Your task to perform on an android device: allow cookies in the chrome app Image 0: 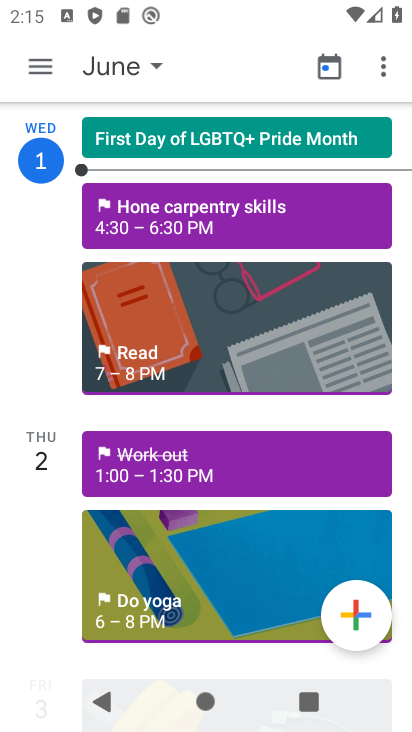
Step 0: press home button
Your task to perform on an android device: allow cookies in the chrome app Image 1: 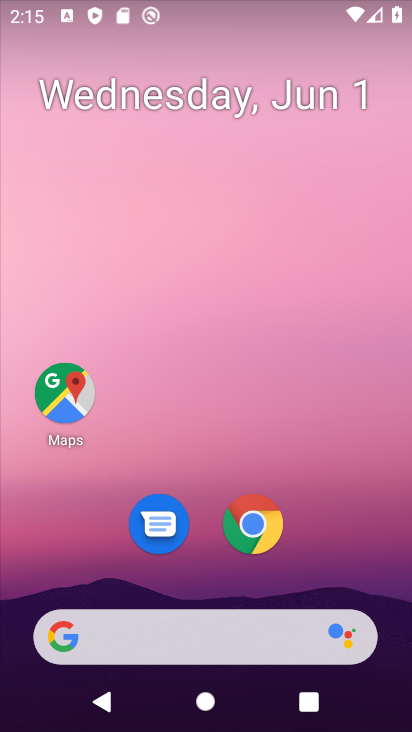
Step 1: click (257, 524)
Your task to perform on an android device: allow cookies in the chrome app Image 2: 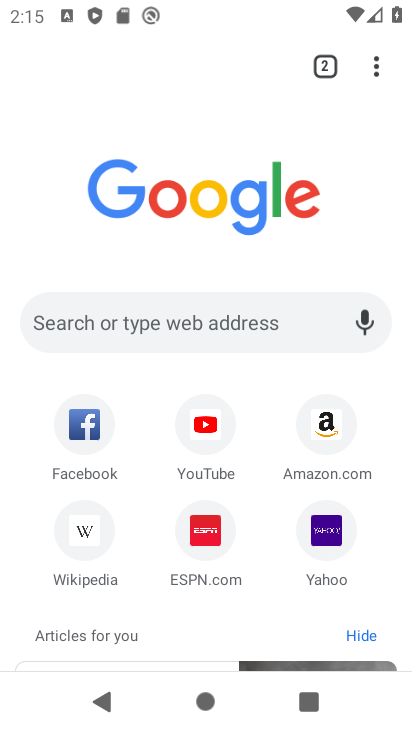
Step 2: click (368, 66)
Your task to perform on an android device: allow cookies in the chrome app Image 3: 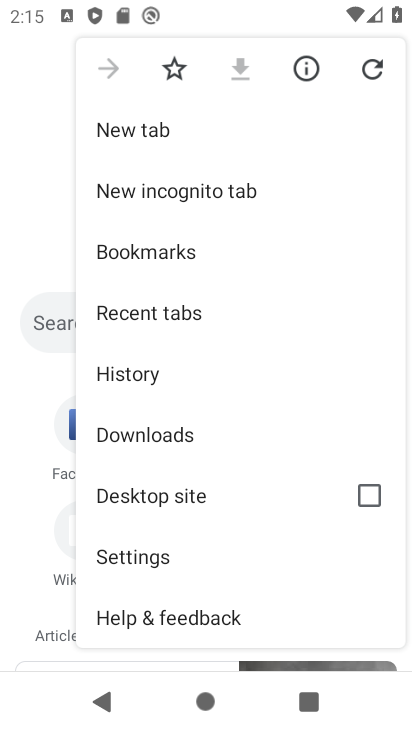
Step 3: click (202, 561)
Your task to perform on an android device: allow cookies in the chrome app Image 4: 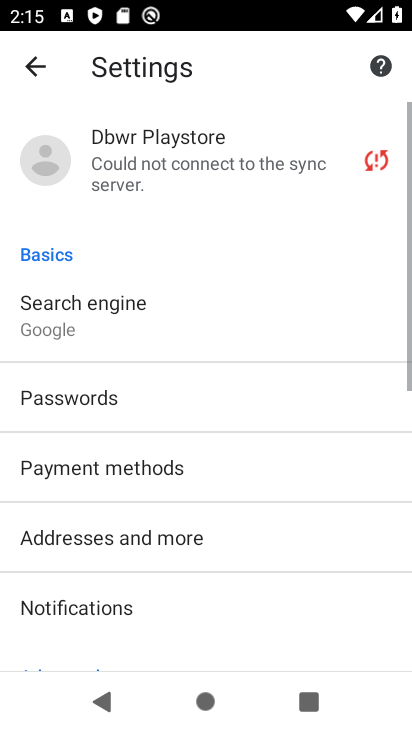
Step 4: drag from (268, 457) to (300, 164)
Your task to perform on an android device: allow cookies in the chrome app Image 5: 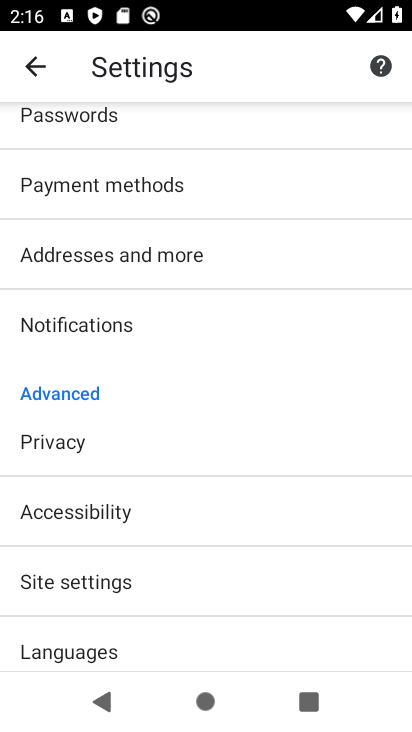
Step 5: click (225, 583)
Your task to perform on an android device: allow cookies in the chrome app Image 6: 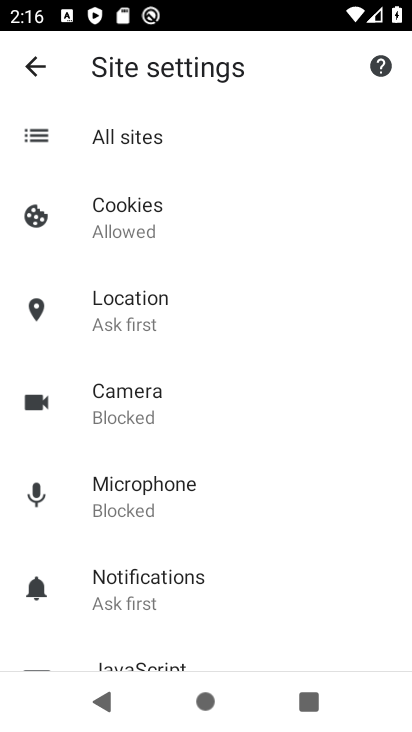
Step 6: click (132, 209)
Your task to perform on an android device: allow cookies in the chrome app Image 7: 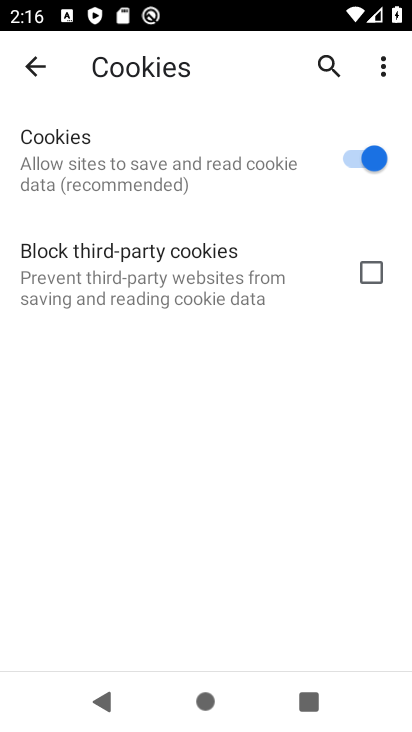
Step 7: task complete